Your task to perform on an android device: What's the weather going to be tomorrow? Image 0: 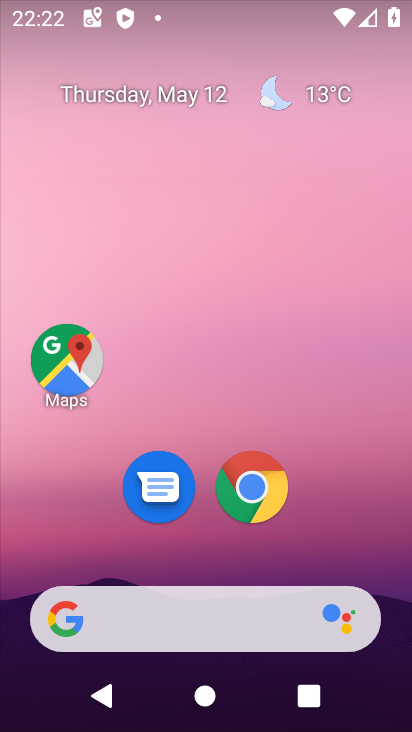
Step 0: click (337, 87)
Your task to perform on an android device: What's the weather going to be tomorrow? Image 1: 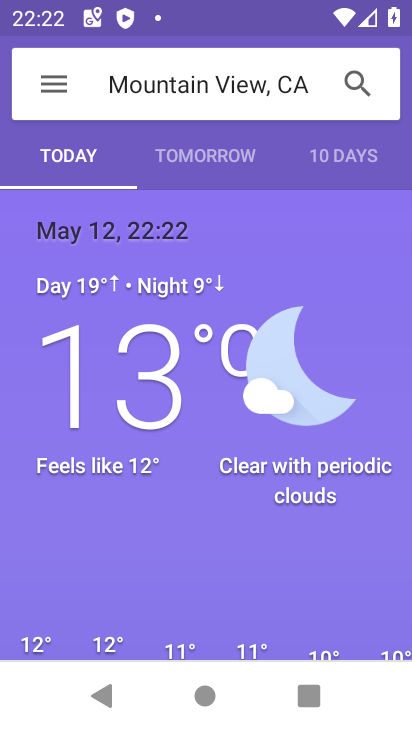
Step 1: click (235, 152)
Your task to perform on an android device: What's the weather going to be tomorrow? Image 2: 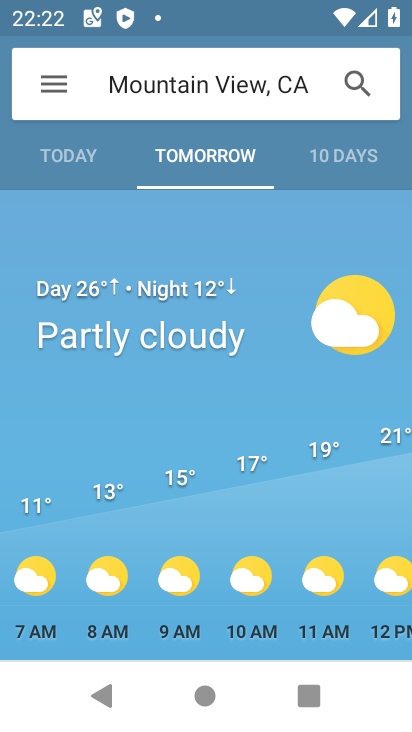
Step 2: task complete